Your task to perform on an android device: Turn off the flashlight Image 0: 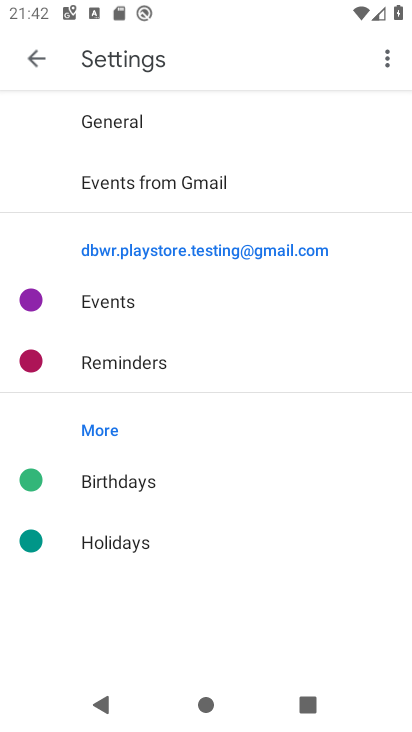
Step 0: press home button
Your task to perform on an android device: Turn off the flashlight Image 1: 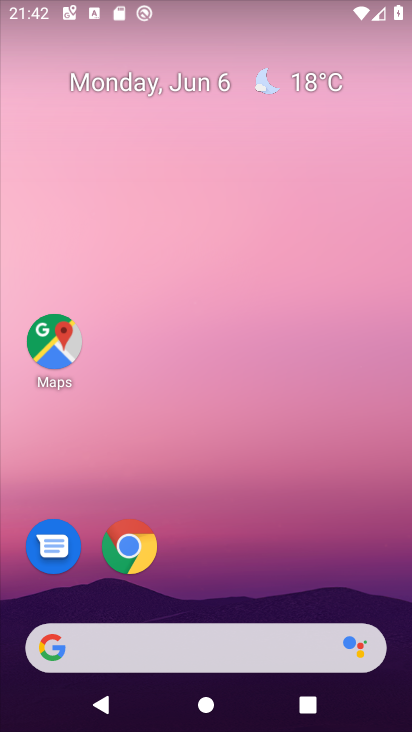
Step 1: drag from (248, 8) to (180, 616)
Your task to perform on an android device: Turn off the flashlight Image 2: 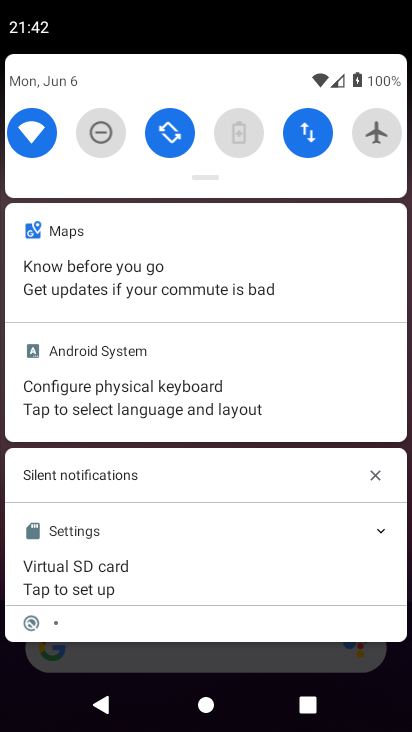
Step 2: drag from (210, 181) to (175, 466)
Your task to perform on an android device: Turn off the flashlight Image 3: 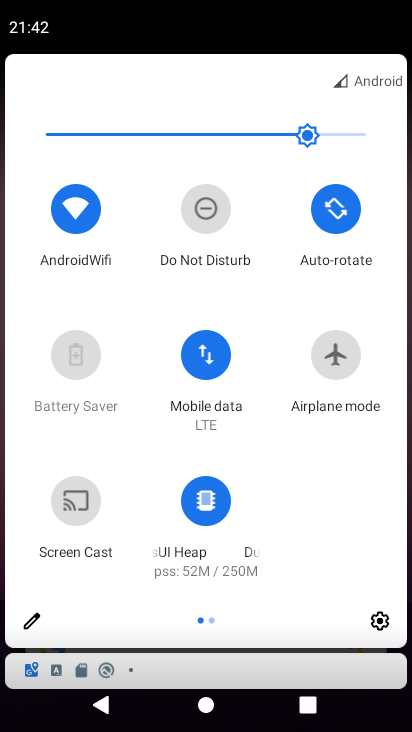
Step 3: click (28, 626)
Your task to perform on an android device: Turn off the flashlight Image 4: 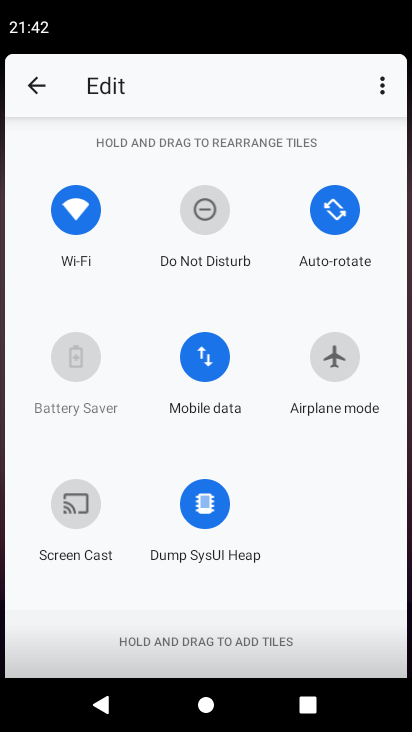
Step 4: task complete